Your task to perform on an android device: What's on my calendar today? Image 0: 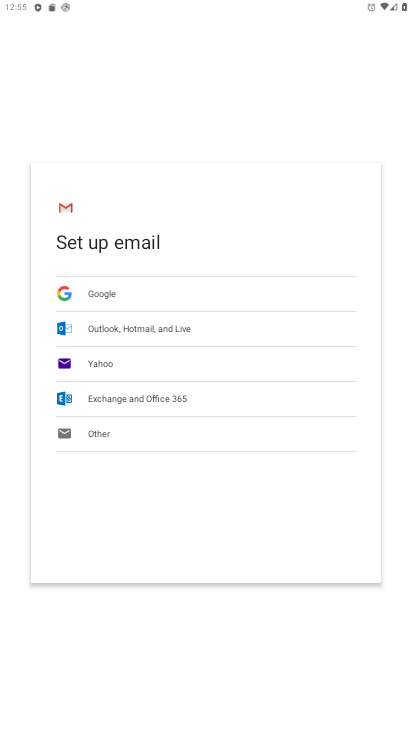
Step 0: press home button
Your task to perform on an android device: What's on my calendar today? Image 1: 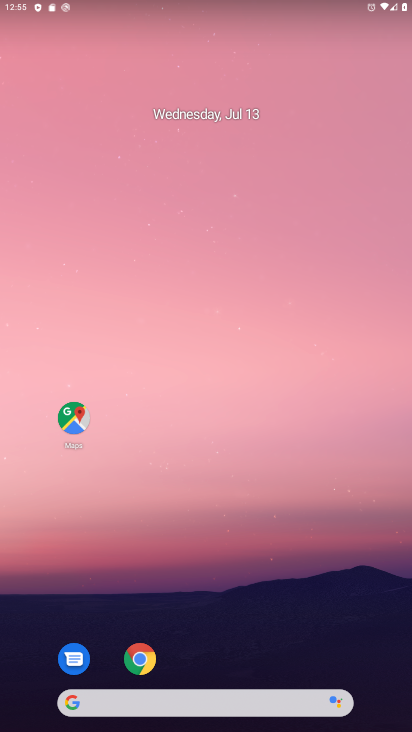
Step 1: drag from (38, 684) to (111, 105)
Your task to perform on an android device: What's on my calendar today? Image 2: 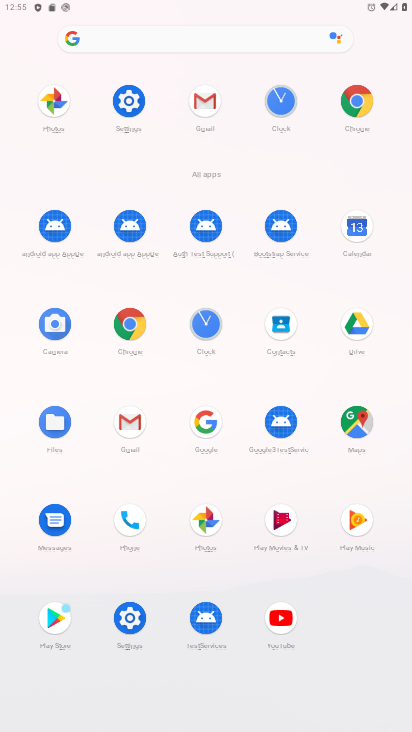
Step 2: click (357, 238)
Your task to perform on an android device: What's on my calendar today? Image 3: 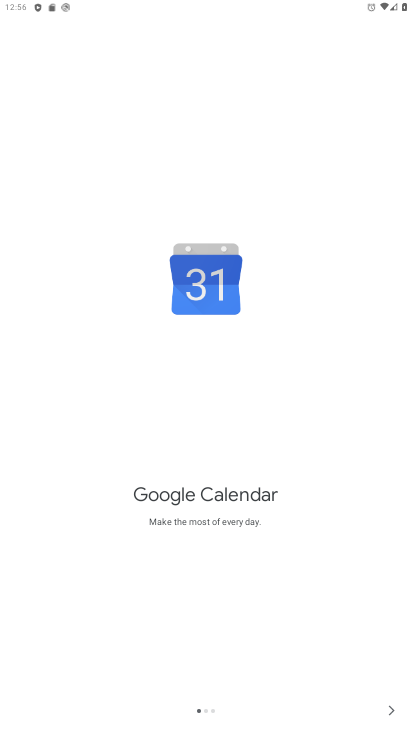
Step 3: click (392, 702)
Your task to perform on an android device: What's on my calendar today? Image 4: 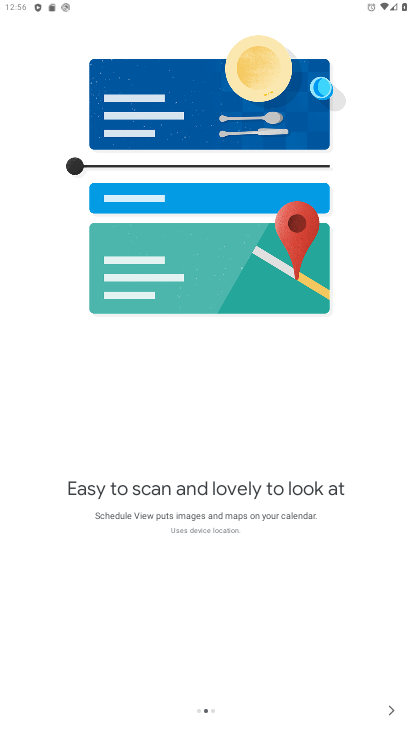
Step 4: click (391, 711)
Your task to perform on an android device: What's on my calendar today? Image 5: 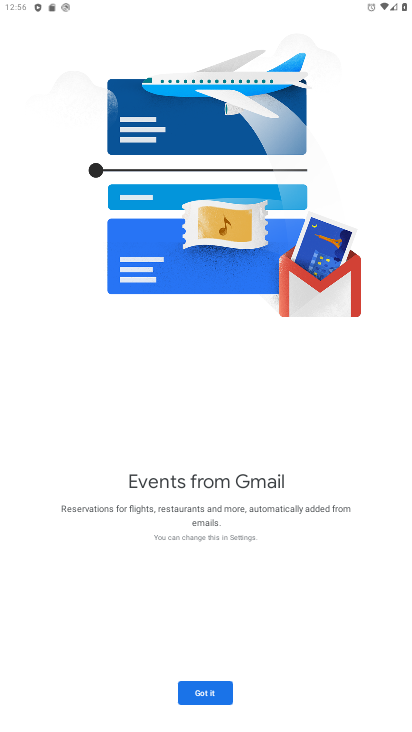
Step 5: click (192, 684)
Your task to perform on an android device: What's on my calendar today? Image 6: 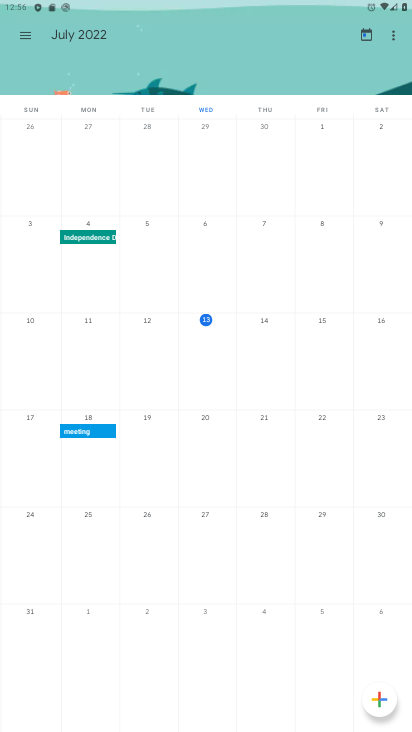
Step 6: task complete